Your task to perform on an android device: Open CNN.com Image 0: 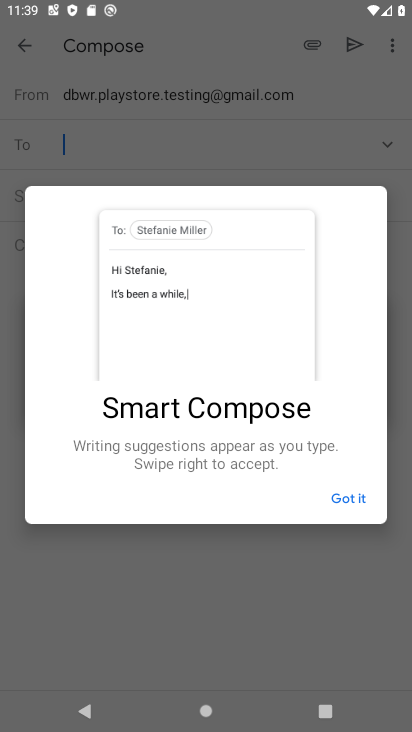
Step 0: press home button
Your task to perform on an android device: Open CNN.com Image 1: 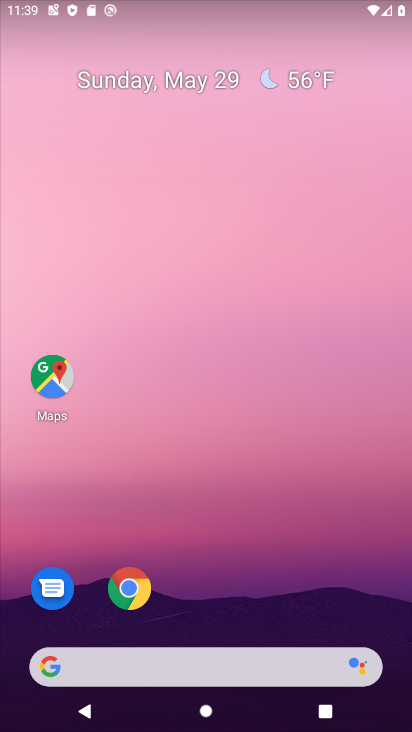
Step 1: drag from (373, 569) to (350, 1)
Your task to perform on an android device: Open CNN.com Image 2: 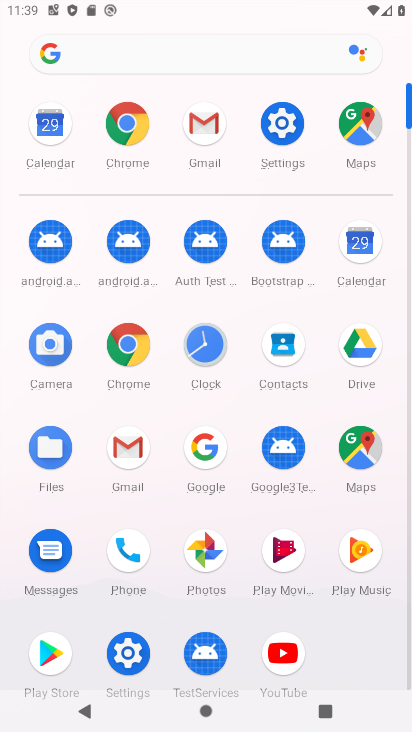
Step 2: click (131, 139)
Your task to perform on an android device: Open CNN.com Image 3: 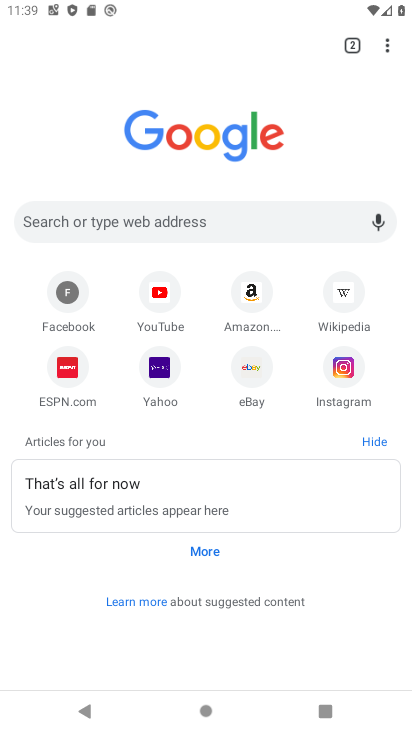
Step 3: click (108, 202)
Your task to perform on an android device: Open CNN.com Image 4: 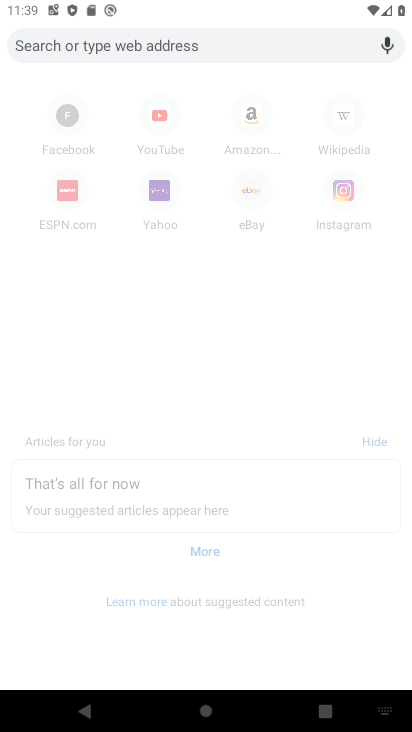
Step 4: type "cnn"
Your task to perform on an android device: Open CNN.com Image 5: 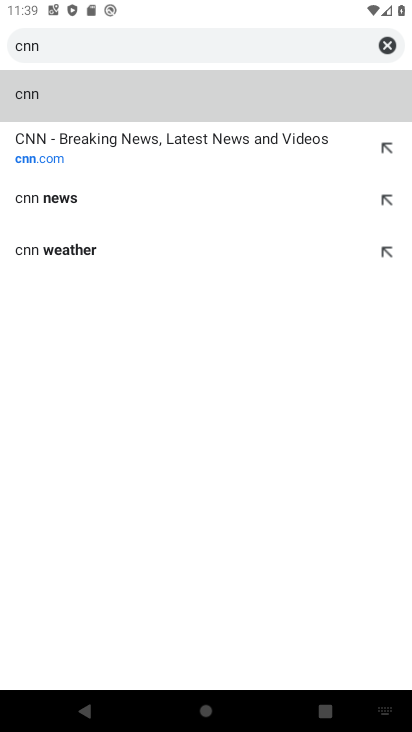
Step 5: click (49, 151)
Your task to perform on an android device: Open CNN.com Image 6: 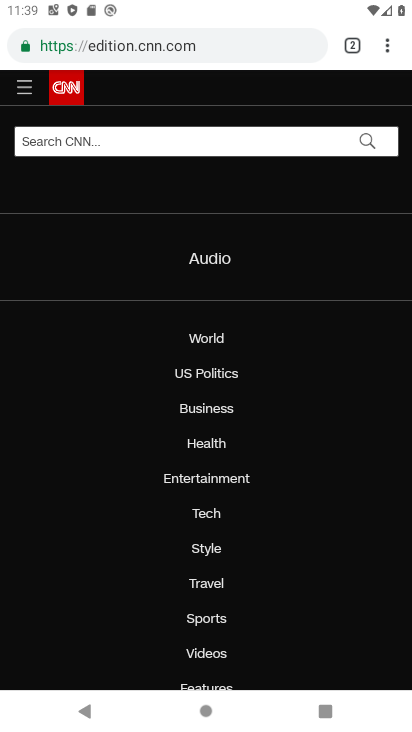
Step 6: task complete